Your task to perform on an android device: turn on javascript in the chrome app Image 0: 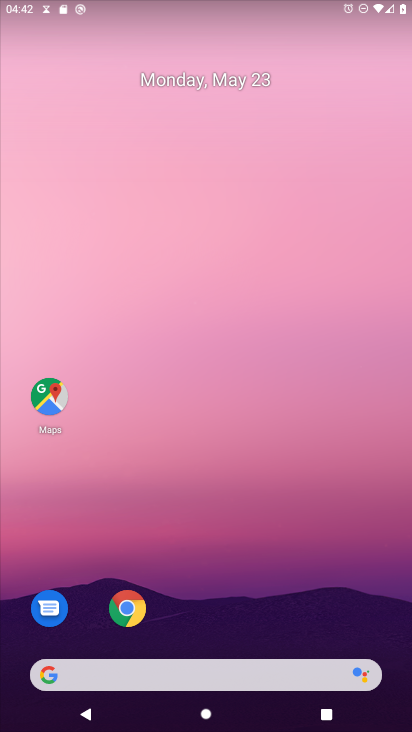
Step 0: click (126, 609)
Your task to perform on an android device: turn on javascript in the chrome app Image 1: 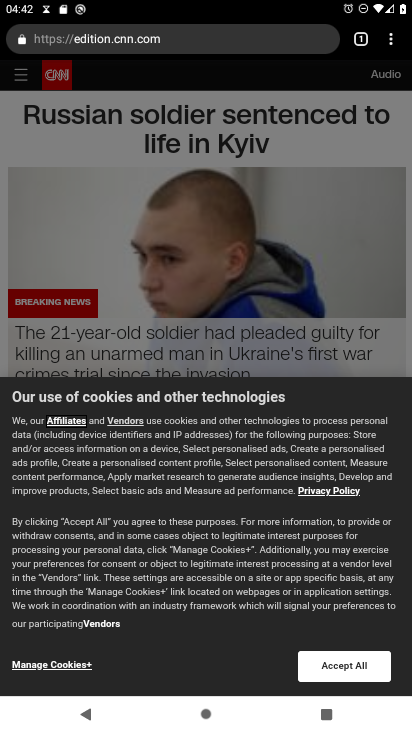
Step 1: click (392, 40)
Your task to perform on an android device: turn on javascript in the chrome app Image 2: 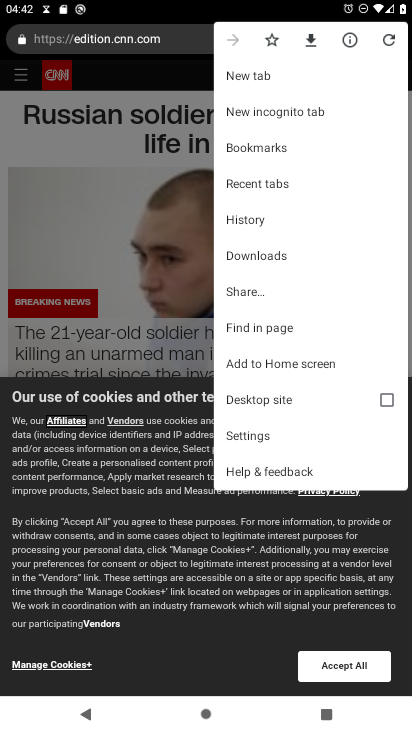
Step 2: click (257, 429)
Your task to perform on an android device: turn on javascript in the chrome app Image 3: 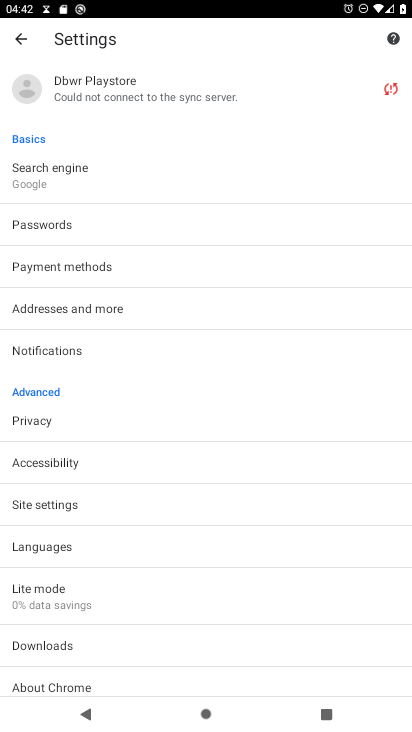
Step 3: click (70, 504)
Your task to perform on an android device: turn on javascript in the chrome app Image 4: 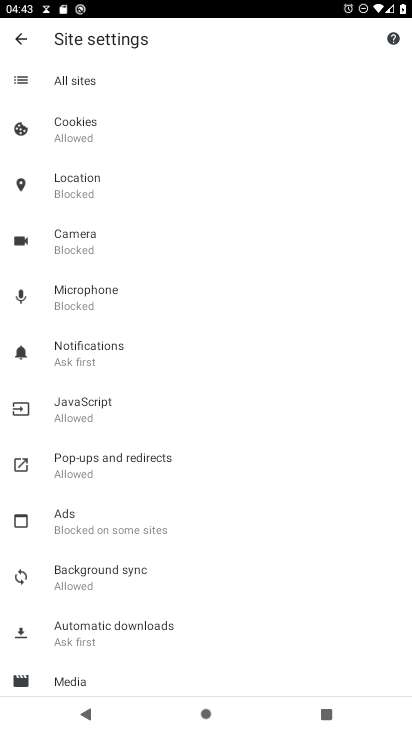
Step 4: click (88, 403)
Your task to perform on an android device: turn on javascript in the chrome app Image 5: 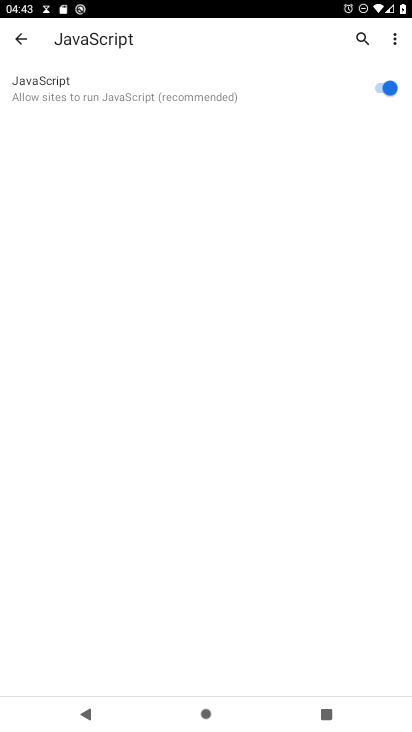
Step 5: task complete